Your task to perform on an android device: Open Chrome and go to settings Image 0: 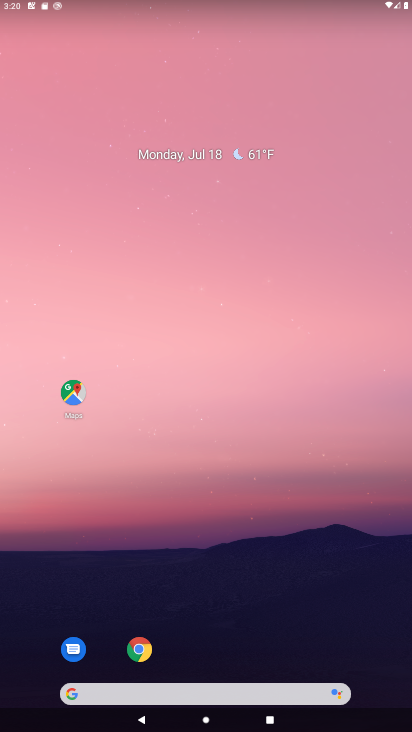
Step 0: click (139, 649)
Your task to perform on an android device: Open Chrome and go to settings Image 1: 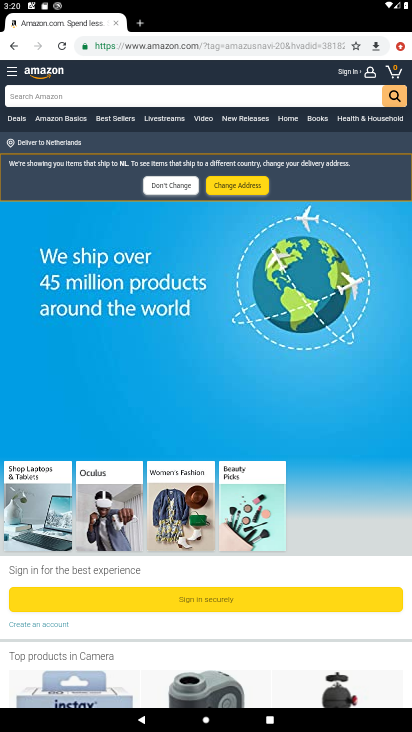
Step 1: click (402, 41)
Your task to perform on an android device: Open Chrome and go to settings Image 2: 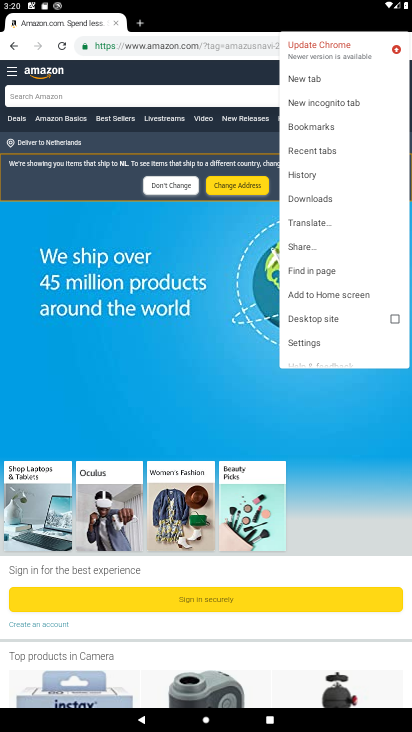
Step 2: click (335, 347)
Your task to perform on an android device: Open Chrome and go to settings Image 3: 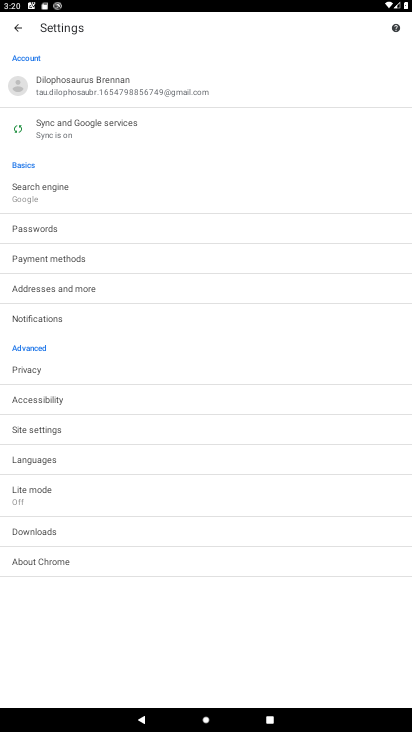
Step 3: task complete